Your task to perform on an android device: turn off notifications in google photos Image 0: 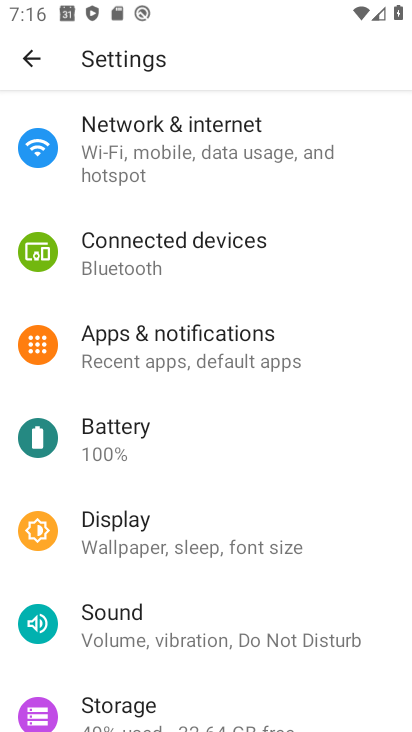
Step 0: press back button
Your task to perform on an android device: turn off notifications in google photos Image 1: 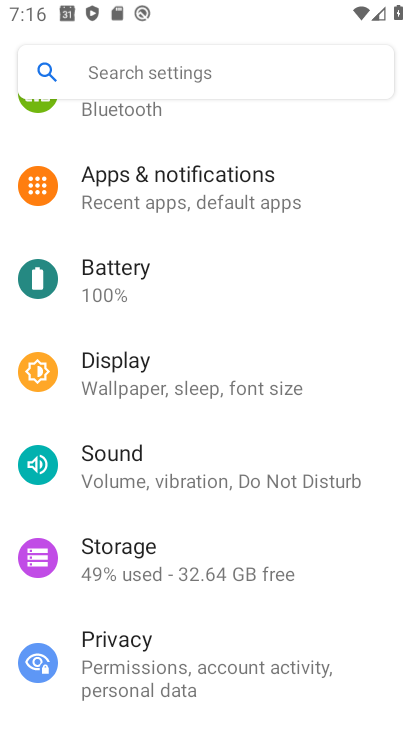
Step 1: press back button
Your task to perform on an android device: turn off notifications in google photos Image 2: 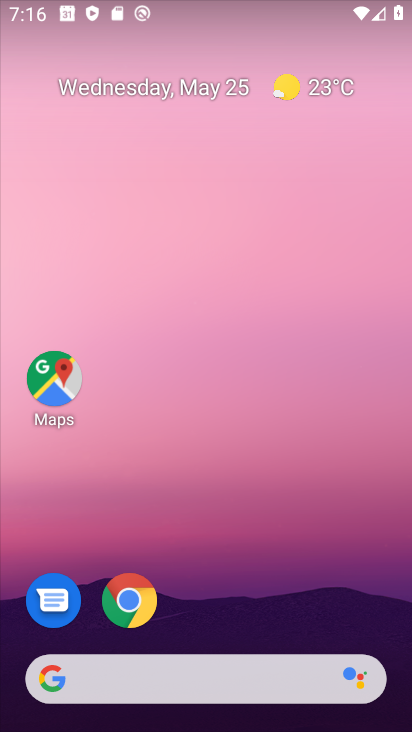
Step 2: drag from (268, 569) to (275, 88)
Your task to perform on an android device: turn off notifications in google photos Image 3: 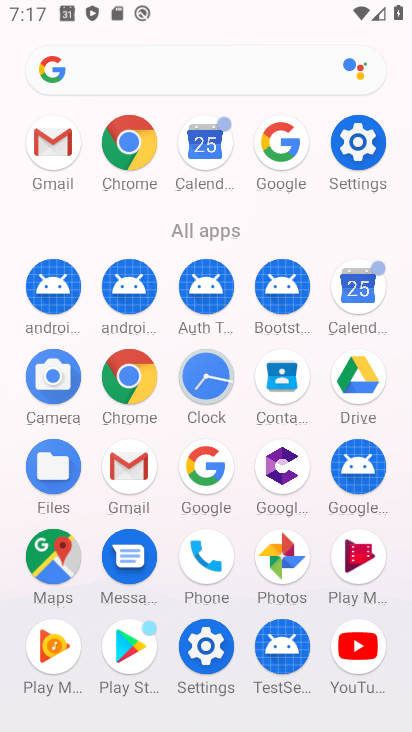
Step 3: click (282, 556)
Your task to perform on an android device: turn off notifications in google photos Image 4: 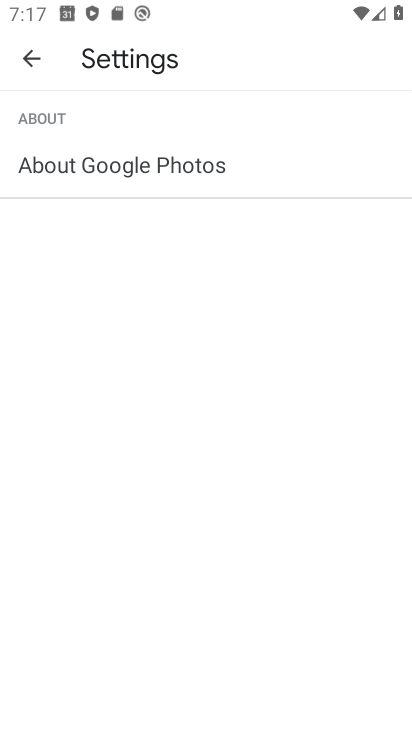
Step 4: press back button
Your task to perform on an android device: turn off notifications in google photos Image 5: 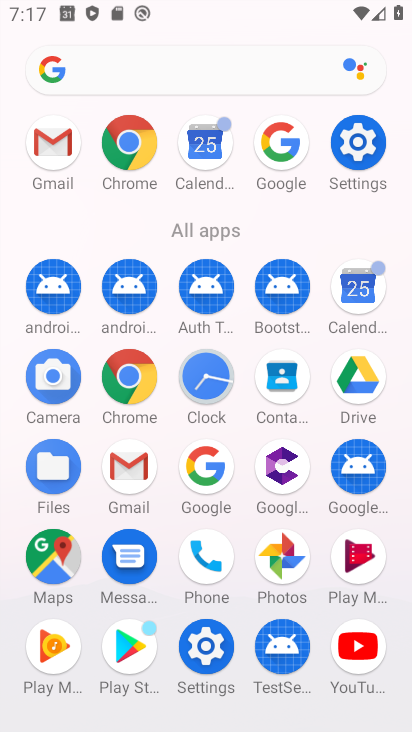
Step 5: click (283, 557)
Your task to perform on an android device: turn off notifications in google photos Image 6: 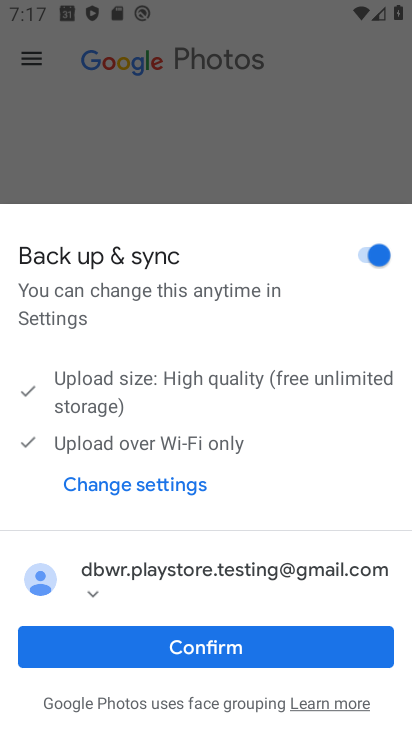
Step 6: click (206, 644)
Your task to perform on an android device: turn off notifications in google photos Image 7: 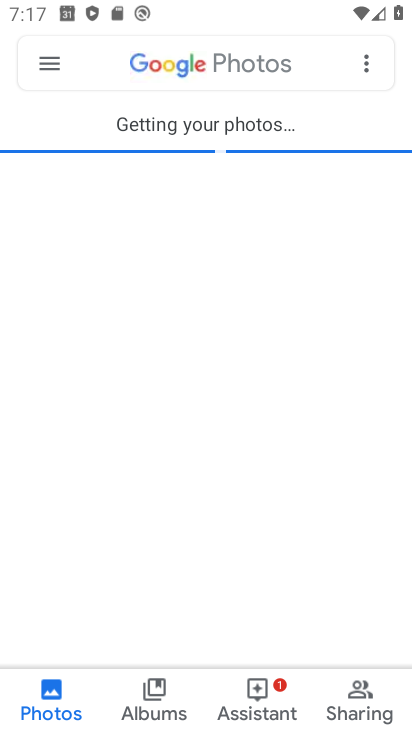
Step 7: click (48, 61)
Your task to perform on an android device: turn off notifications in google photos Image 8: 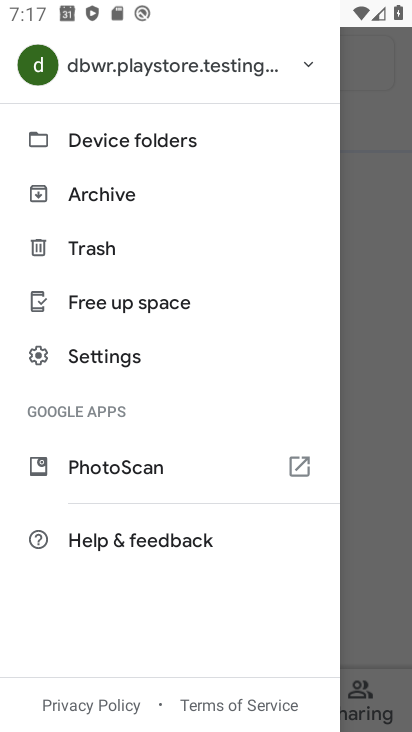
Step 8: click (98, 354)
Your task to perform on an android device: turn off notifications in google photos Image 9: 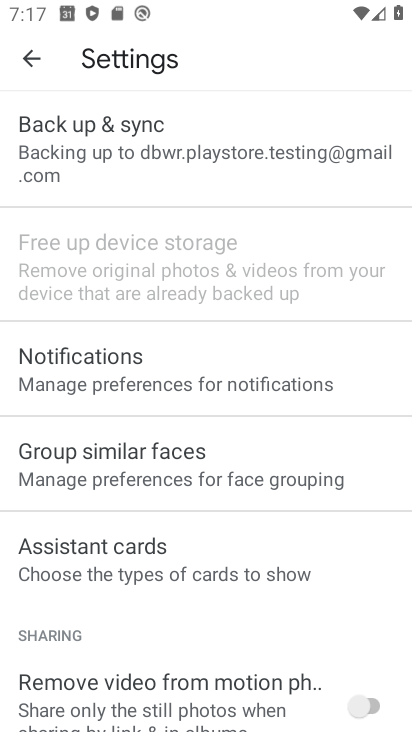
Step 9: click (127, 372)
Your task to perform on an android device: turn off notifications in google photos Image 10: 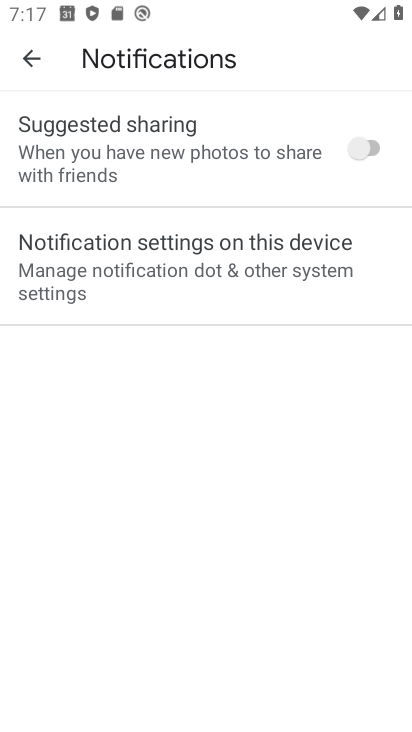
Step 10: click (172, 273)
Your task to perform on an android device: turn off notifications in google photos Image 11: 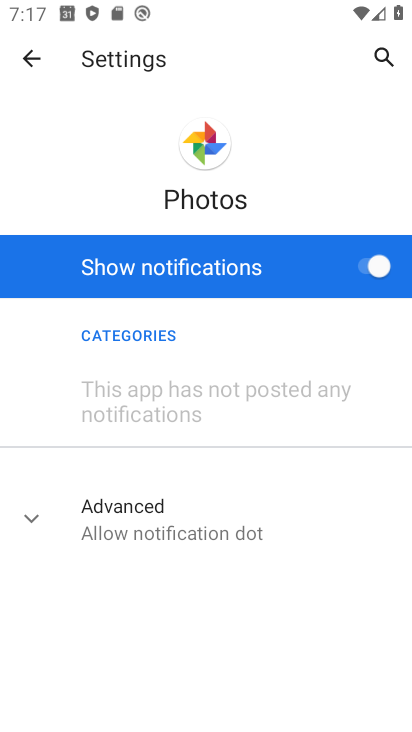
Step 11: click (378, 260)
Your task to perform on an android device: turn off notifications in google photos Image 12: 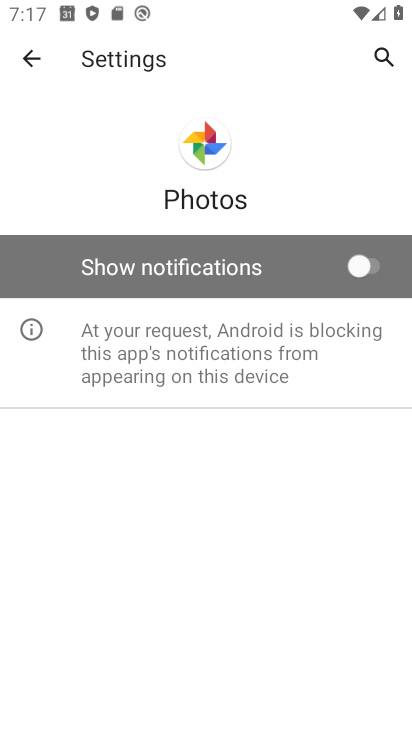
Step 12: task complete